Your task to perform on an android device: open app "YouTube Kids" (install if not already installed) Image 0: 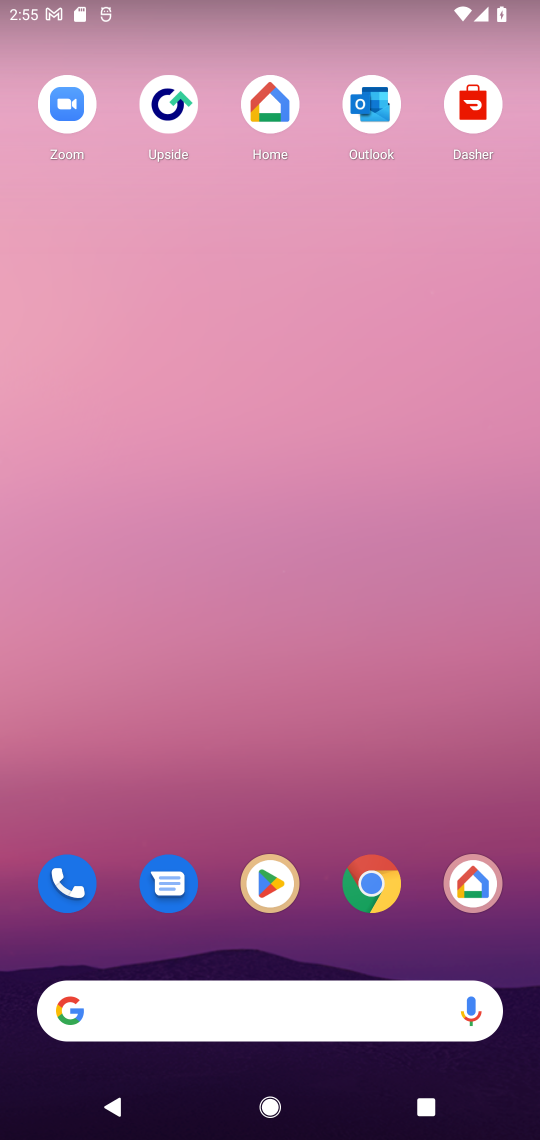
Step 0: drag from (226, 1005) to (228, 47)
Your task to perform on an android device: open app "YouTube Kids" (install if not already installed) Image 1: 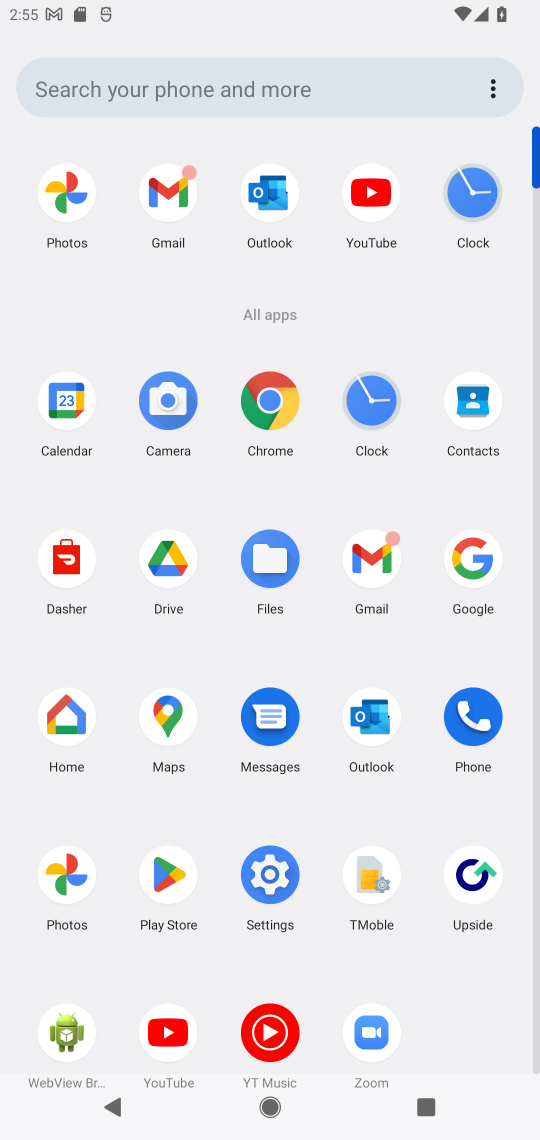
Step 1: click (160, 879)
Your task to perform on an android device: open app "YouTube Kids" (install if not already installed) Image 2: 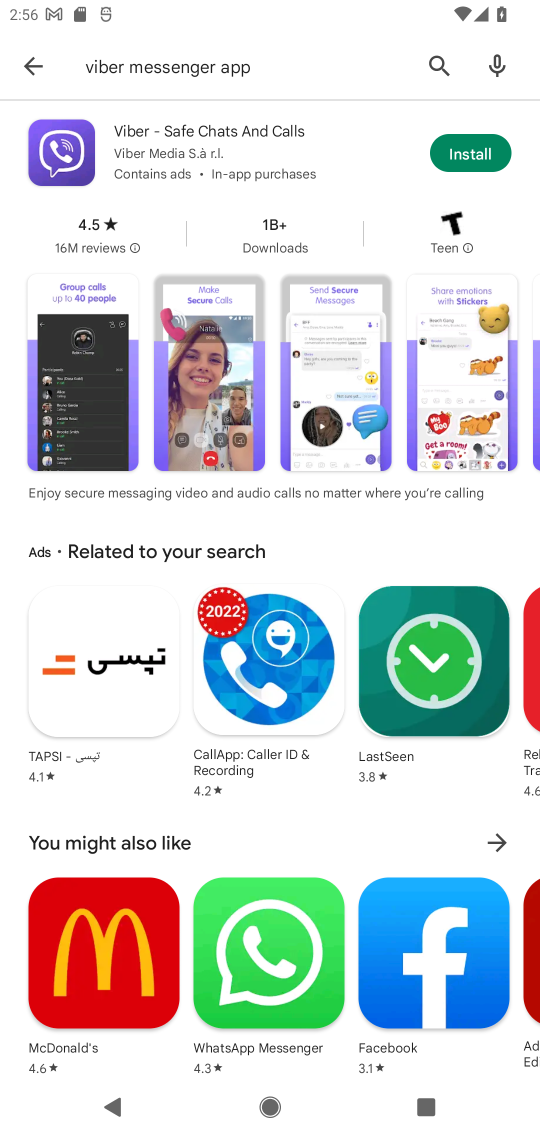
Step 2: click (428, 59)
Your task to perform on an android device: open app "YouTube Kids" (install if not already installed) Image 3: 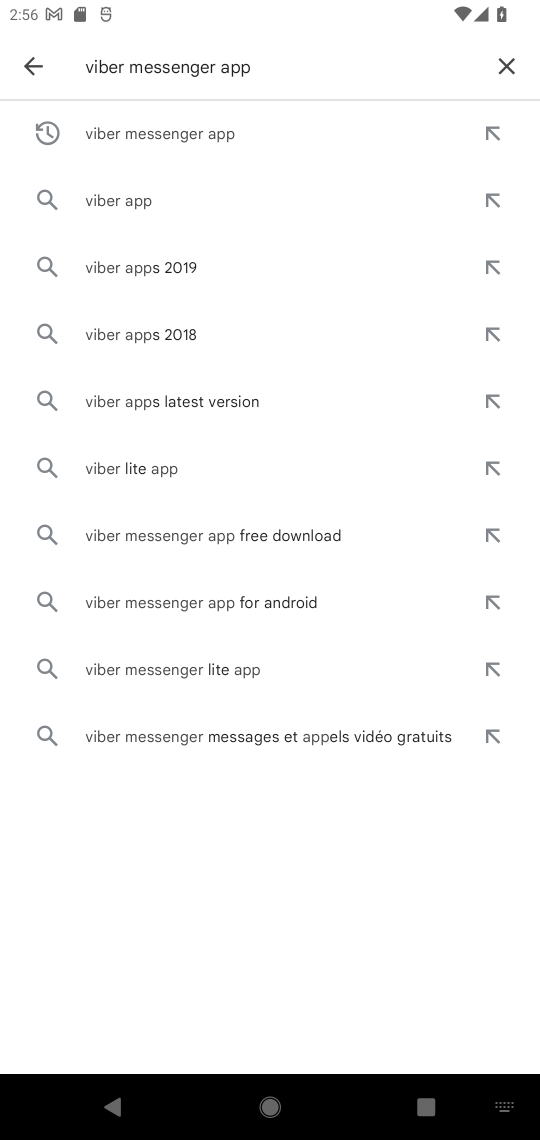
Step 3: click (513, 66)
Your task to perform on an android device: open app "YouTube Kids" (install if not already installed) Image 4: 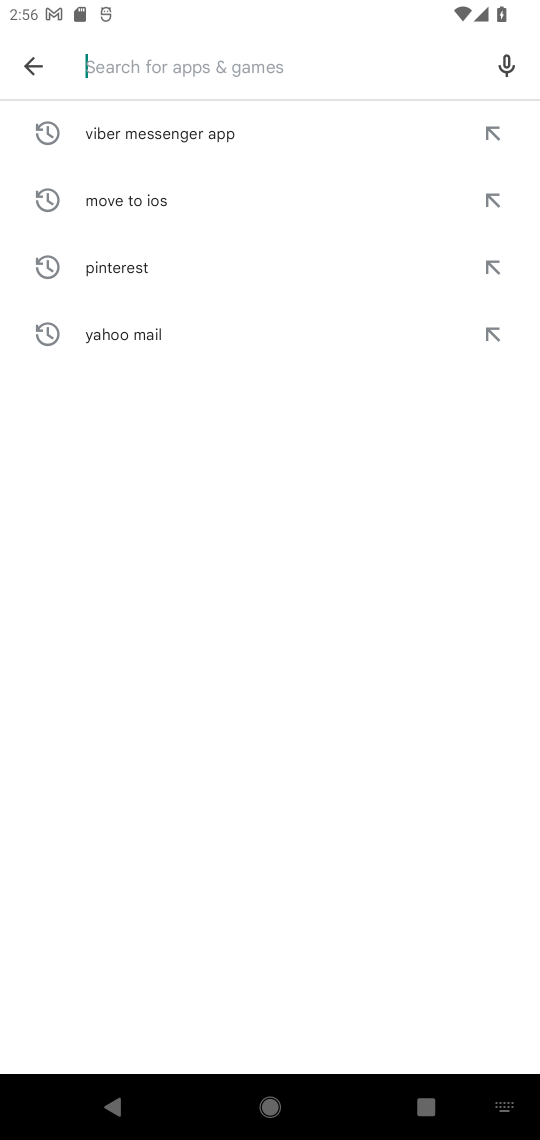
Step 4: type "YouTube Kids"
Your task to perform on an android device: open app "YouTube Kids" (install if not already installed) Image 5: 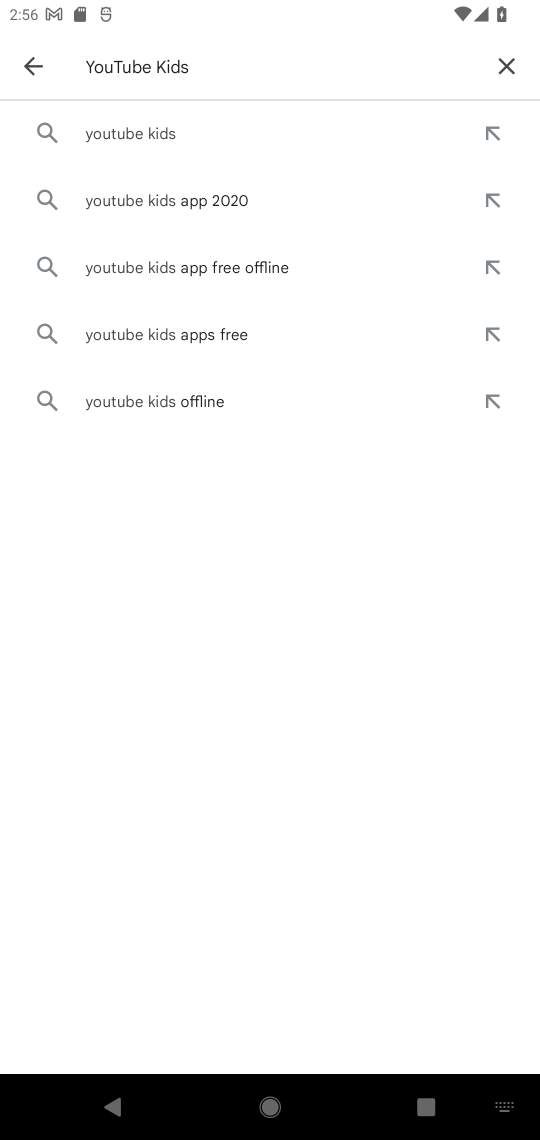
Step 5: click (145, 138)
Your task to perform on an android device: open app "YouTube Kids" (install if not already installed) Image 6: 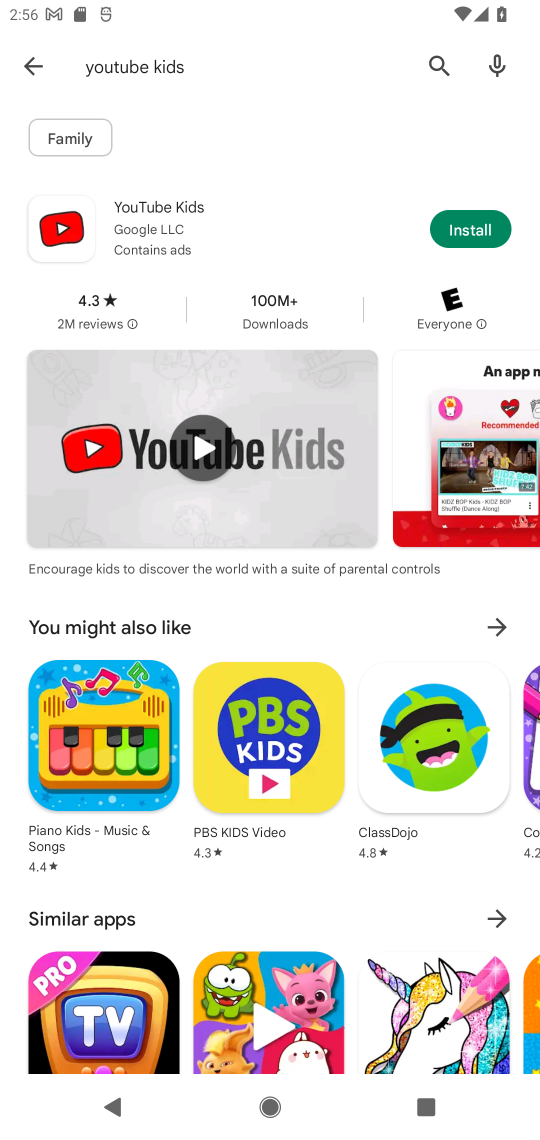
Step 6: click (466, 219)
Your task to perform on an android device: open app "YouTube Kids" (install if not already installed) Image 7: 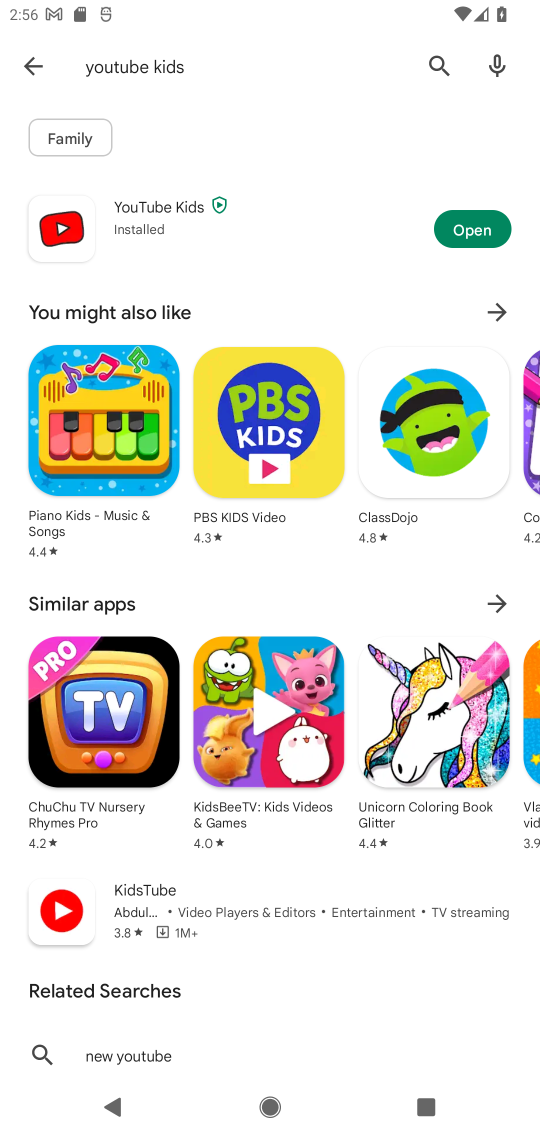
Step 7: click (436, 230)
Your task to perform on an android device: open app "YouTube Kids" (install if not already installed) Image 8: 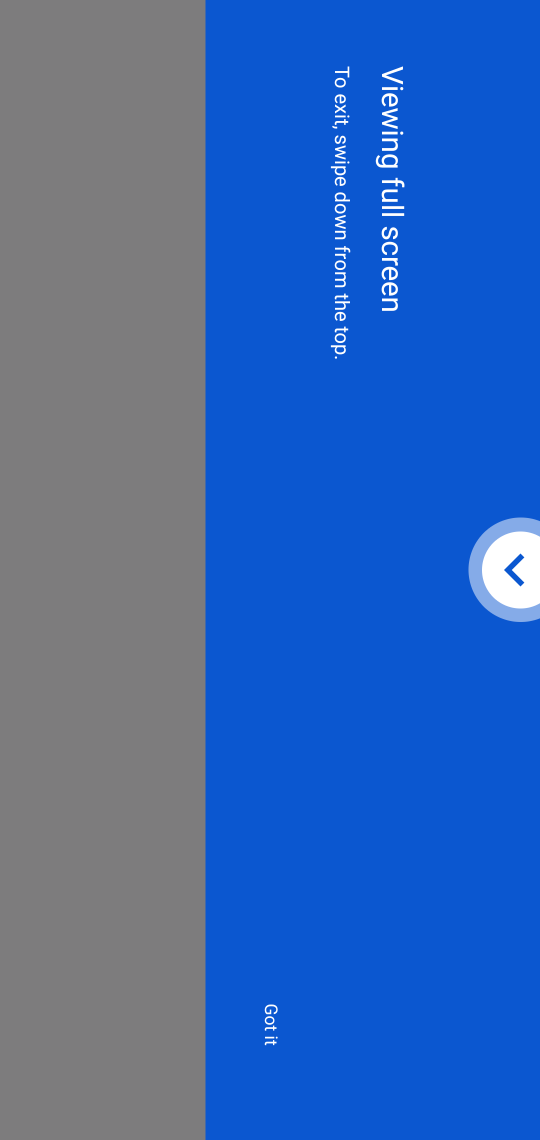
Step 8: task complete